Your task to perform on an android device: Show me popular videos on Youtube Image 0: 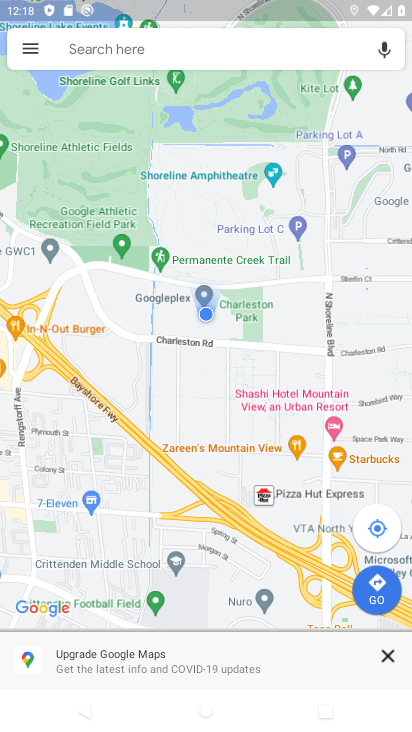
Step 0: press home button
Your task to perform on an android device: Show me popular videos on Youtube Image 1: 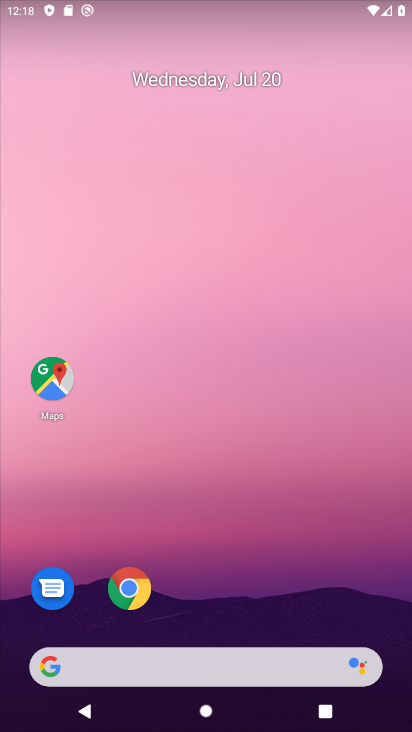
Step 1: drag from (257, 592) to (258, 55)
Your task to perform on an android device: Show me popular videos on Youtube Image 2: 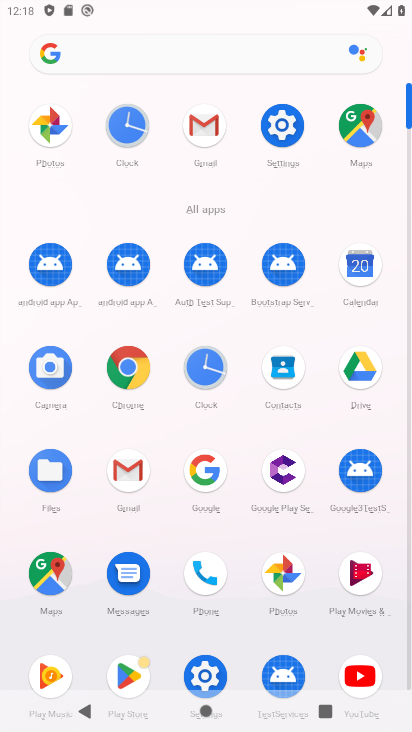
Step 2: click (362, 683)
Your task to perform on an android device: Show me popular videos on Youtube Image 3: 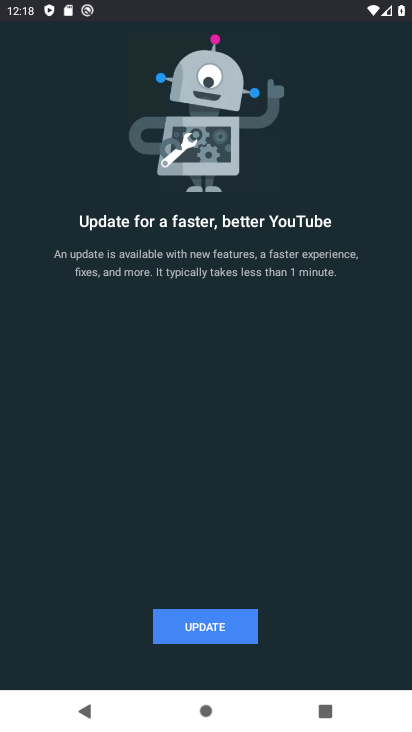
Step 3: click (226, 630)
Your task to perform on an android device: Show me popular videos on Youtube Image 4: 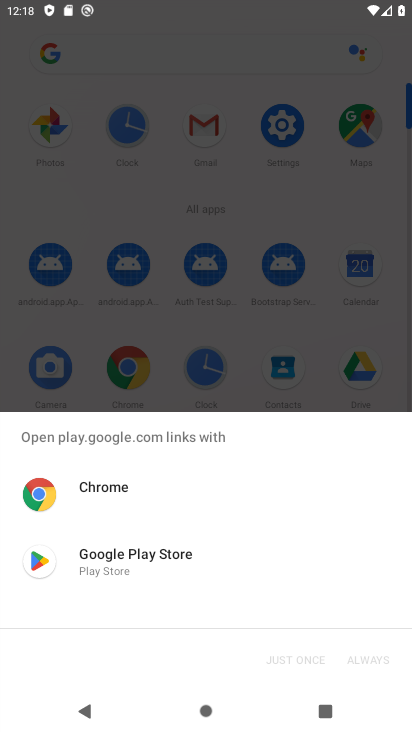
Step 4: click (161, 494)
Your task to perform on an android device: Show me popular videos on Youtube Image 5: 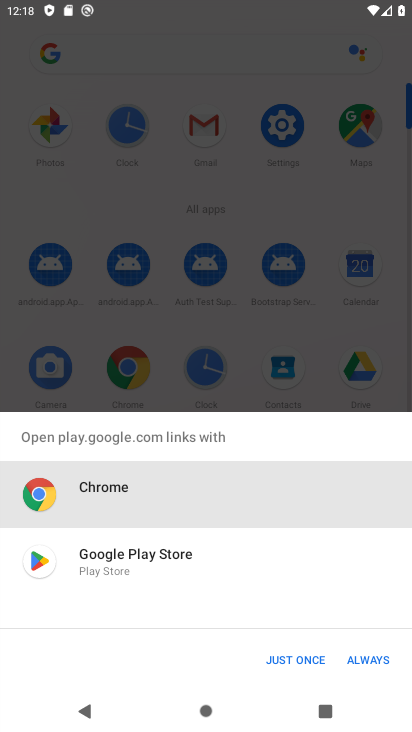
Step 5: click (128, 543)
Your task to perform on an android device: Show me popular videos on Youtube Image 6: 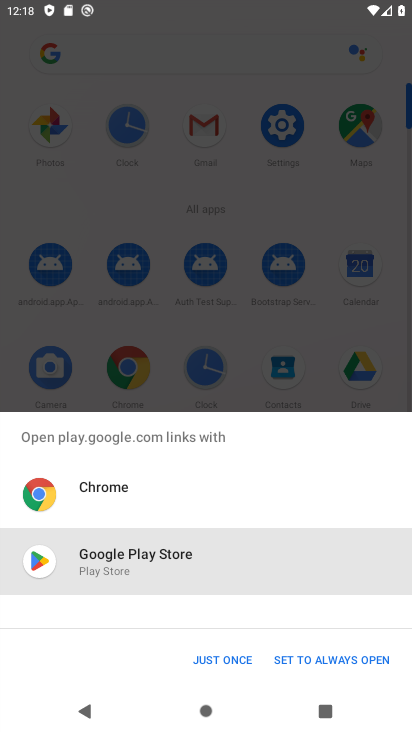
Step 6: click (236, 662)
Your task to perform on an android device: Show me popular videos on Youtube Image 7: 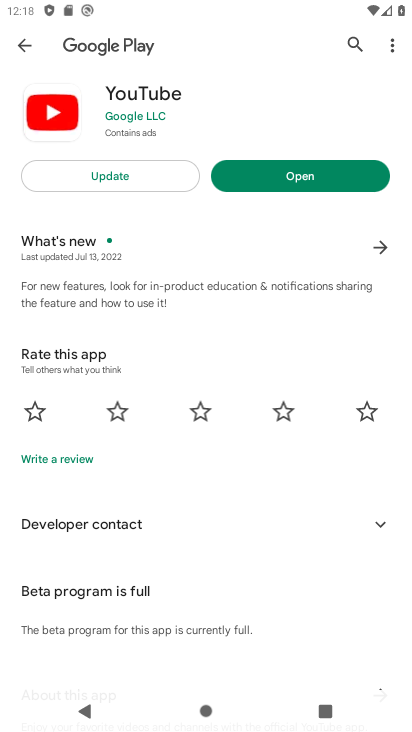
Step 7: click (81, 171)
Your task to perform on an android device: Show me popular videos on Youtube Image 8: 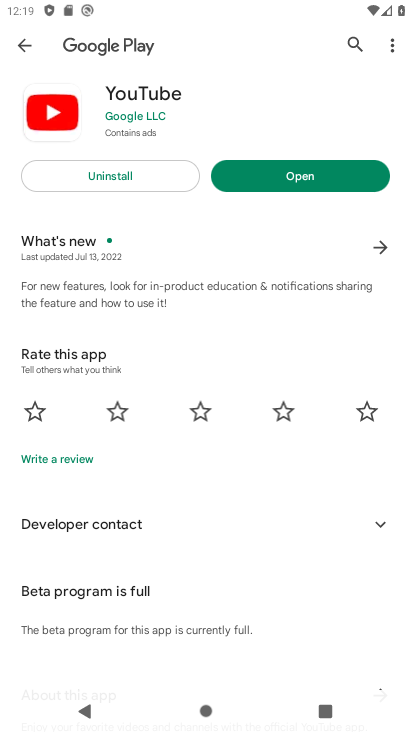
Step 8: click (272, 176)
Your task to perform on an android device: Show me popular videos on Youtube Image 9: 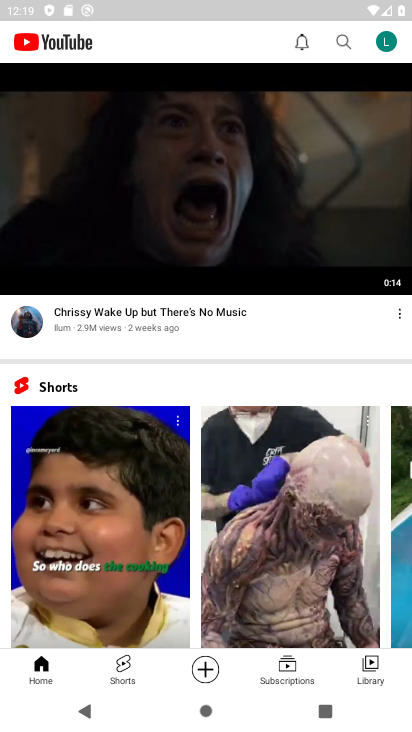
Step 9: drag from (133, 397) to (136, 713)
Your task to perform on an android device: Show me popular videos on Youtube Image 10: 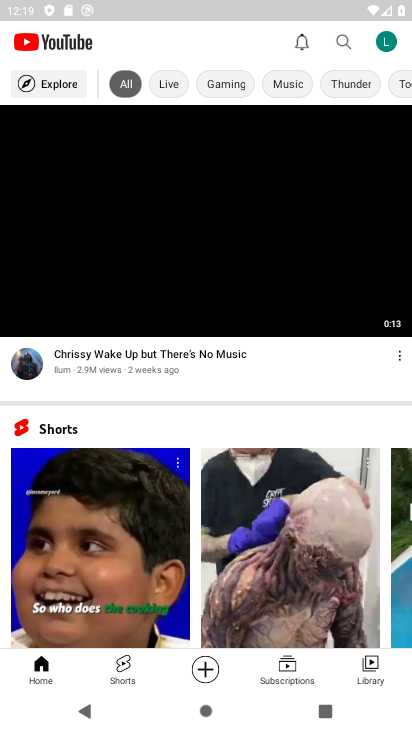
Step 10: click (50, 83)
Your task to perform on an android device: Show me popular videos on Youtube Image 11: 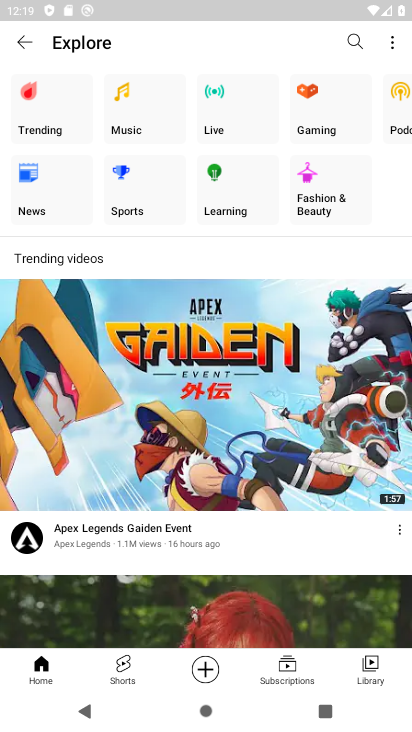
Step 11: click (66, 116)
Your task to perform on an android device: Show me popular videos on Youtube Image 12: 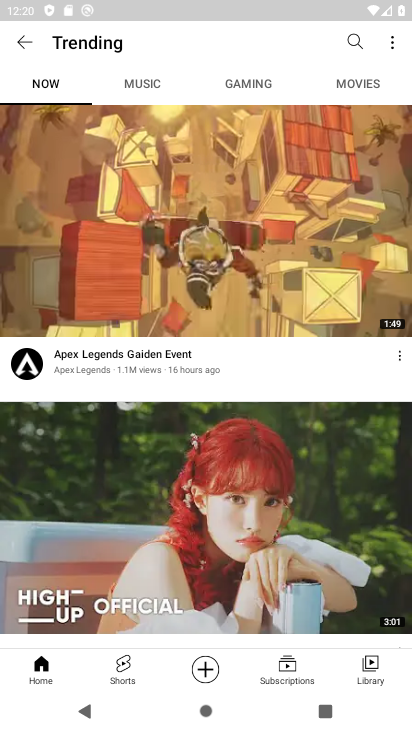
Step 12: task complete